Your task to perform on an android device: turn on sleep mode Image 0: 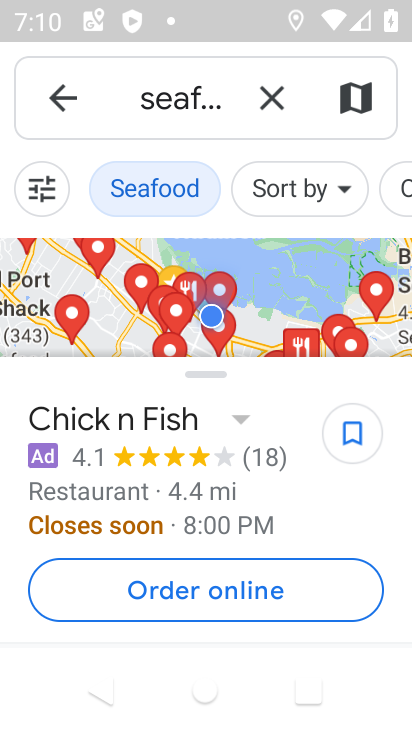
Step 0: press home button
Your task to perform on an android device: turn on sleep mode Image 1: 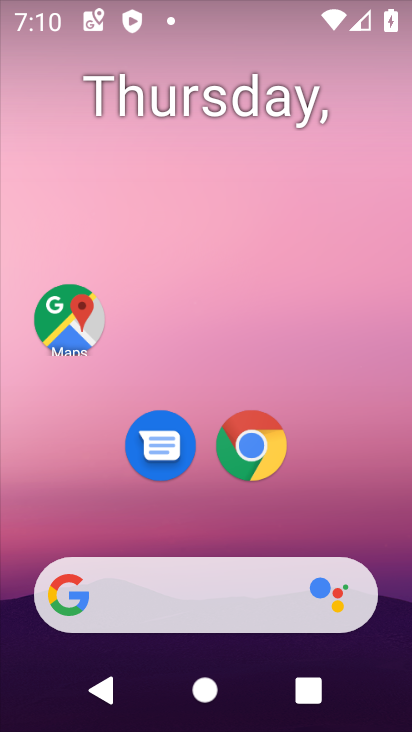
Step 1: drag from (331, 501) to (235, 205)
Your task to perform on an android device: turn on sleep mode Image 2: 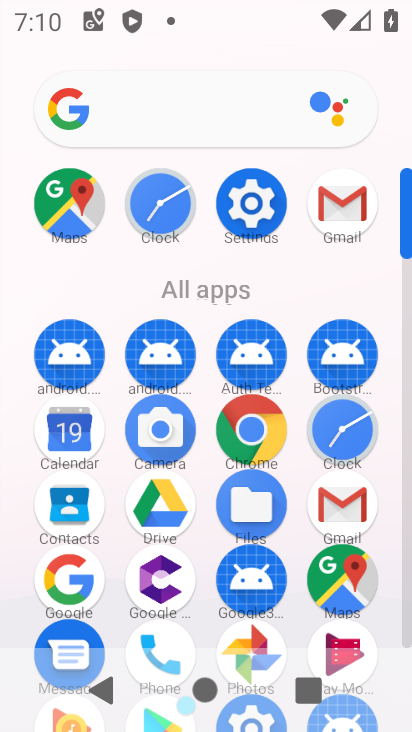
Step 2: click (254, 201)
Your task to perform on an android device: turn on sleep mode Image 3: 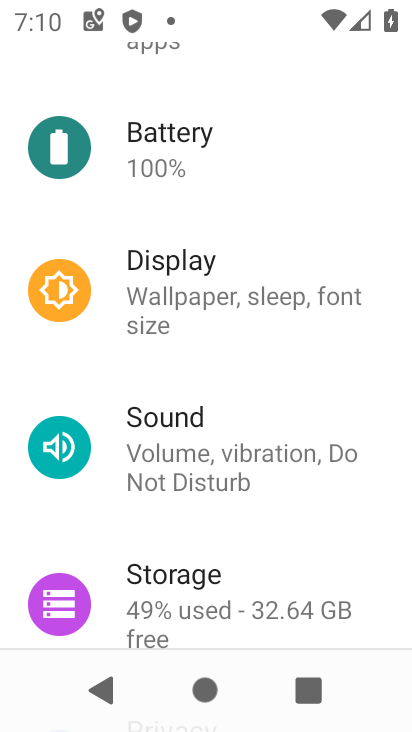
Step 3: click (165, 280)
Your task to perform on an android device: turn on sleep mode Image 4: 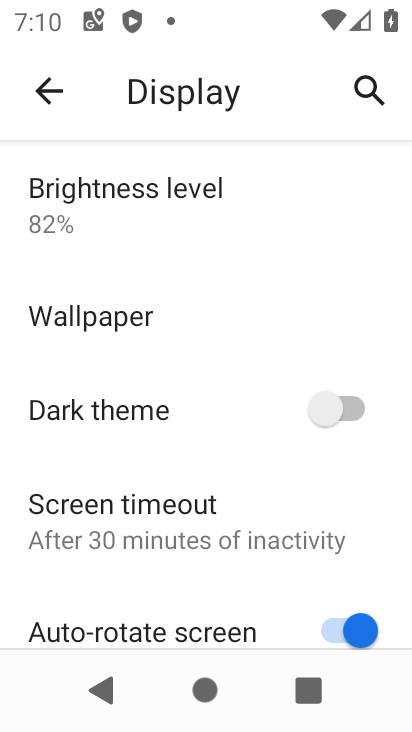
Step 4: task complete